Your task to perform on an android device: Go to internet settings Image 0: 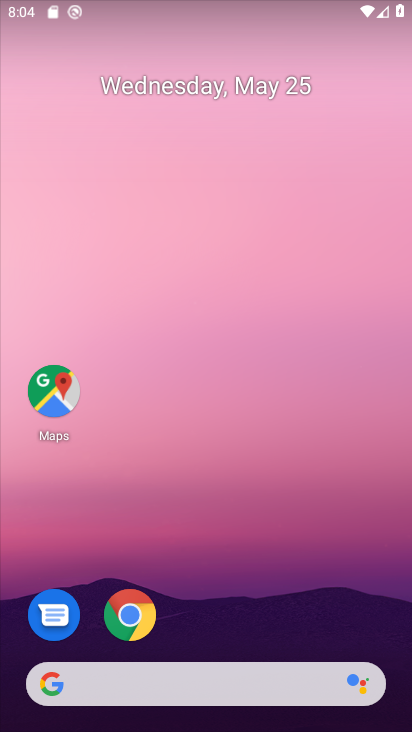
Step 0: drag from (262, 586) to (193, 24)
Your task to perform on an android device: Go to internet settings Image 1: 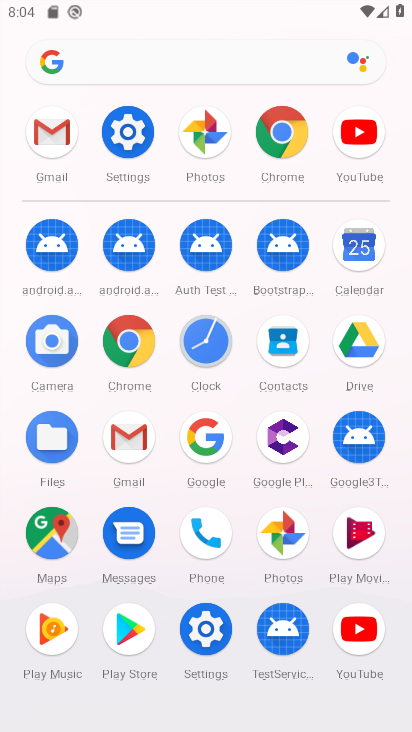
Step 1: click (205, 625)
Your task to perform on an android device: Go to internet settings Image 2: 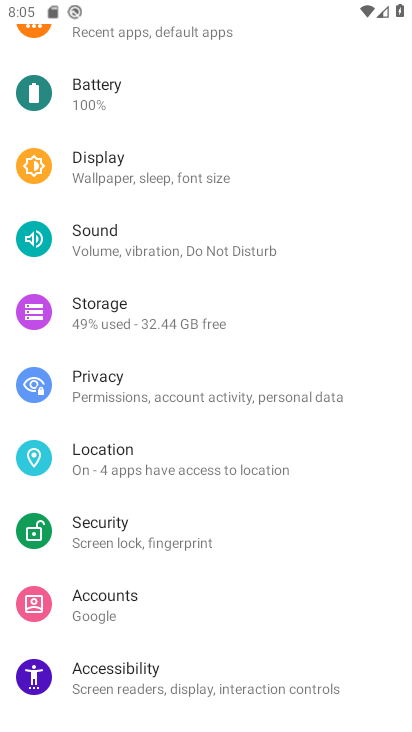
Step 2: drag from (233, 145) to (233, 601)
Your task to perform on an android device: Go to internet settings Image 3: 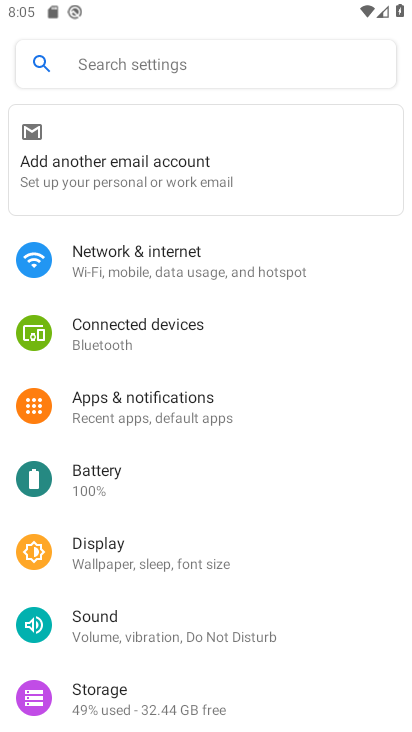
Step 3: click (202, 245)
Your task to perform on an android device: Go to internet settings Image 4: 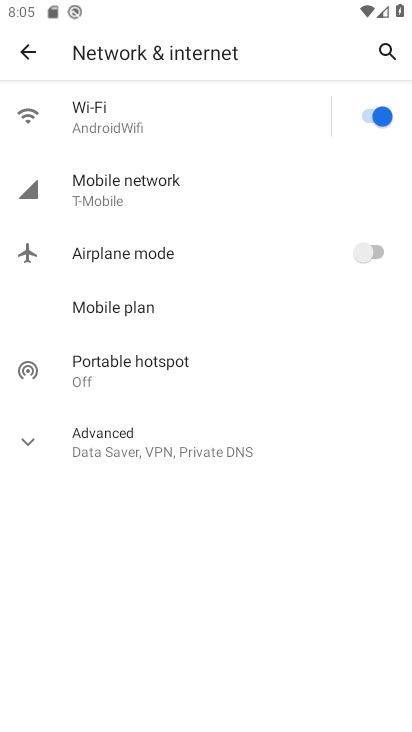
Step 4: click (37, 441)
Your task to perform on an android device: Go to internet settings Image 5: 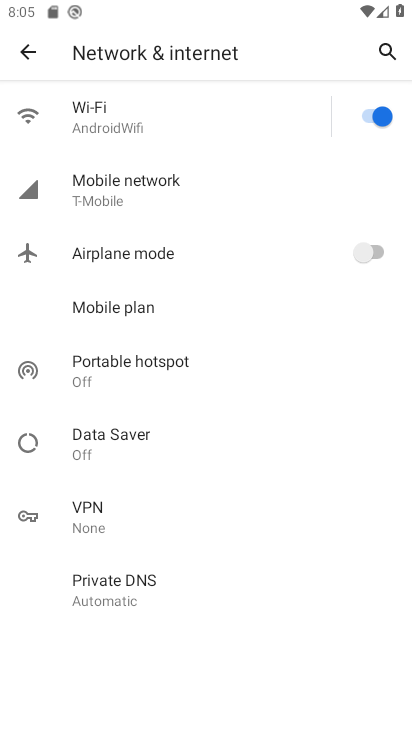
Step 5: task complete